Your task to perform on an android device: toggle sleep mode Image 0: 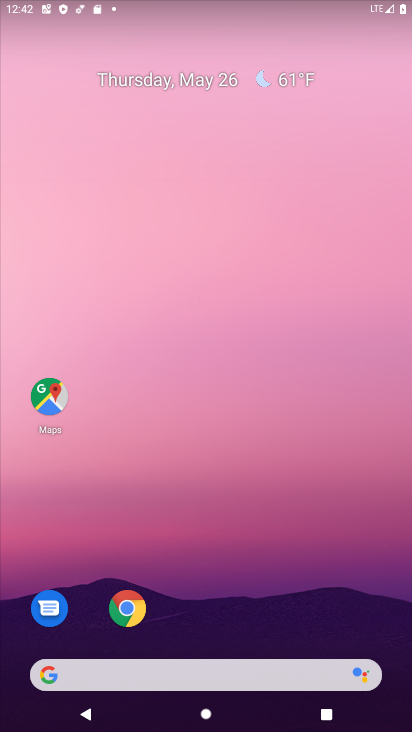
Step 0: drag from (328, 618) to (255, 100)
Your task to perform on an android device: toggle sleep mode Image 1: 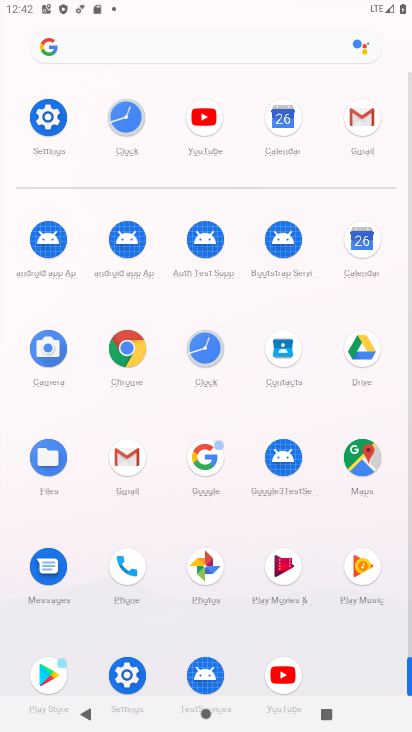
Step 1: click (123, 674)
Your task to perform on an android device: toggle sleep mode Image 2: 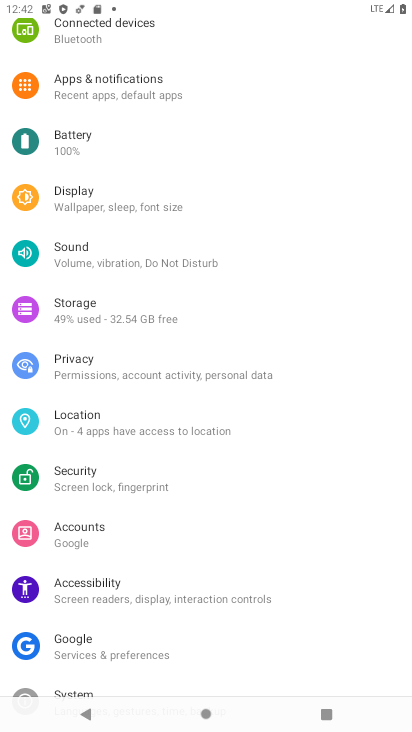
Step 2: click (99, 196)
Your task to perform on an android device: toggle sleep mode Image 3: 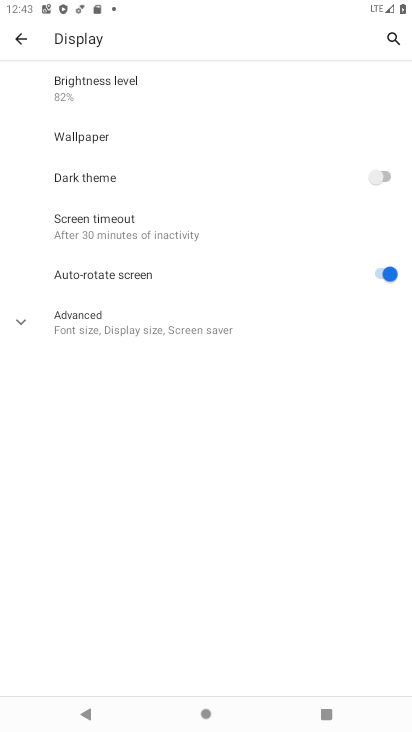
Step 3: click (18, 319)
Your task to perform on an android device: toggle sleep mode Image 4: 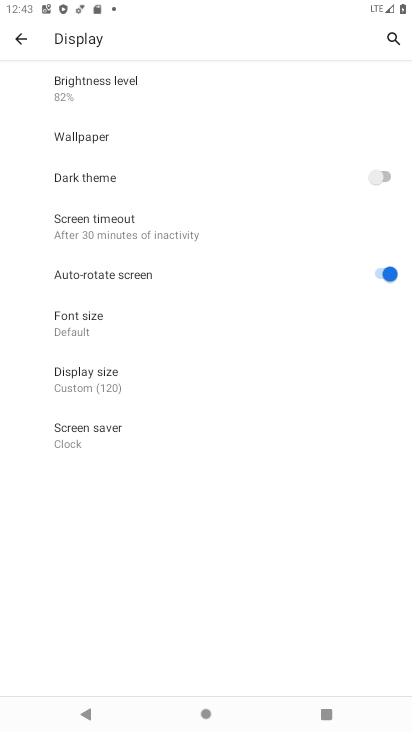
Step 4: task complete